Your task to perform on an android device: turn on notifications settings in the gmail app Image 0: 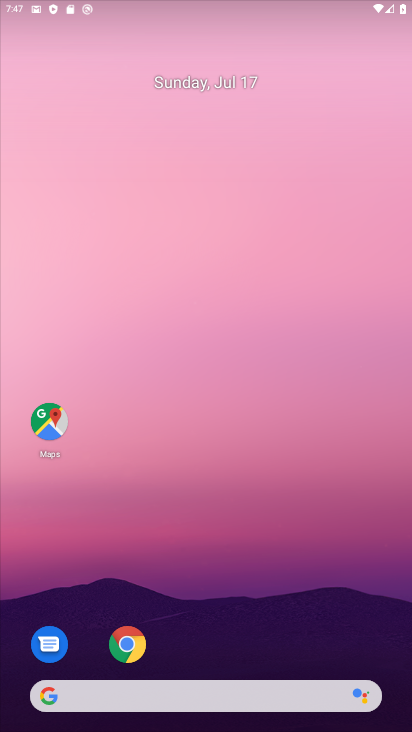
Step 0: press home button
Your task to perform on an android device: turn on notifications settings in the gmail app Image 1: 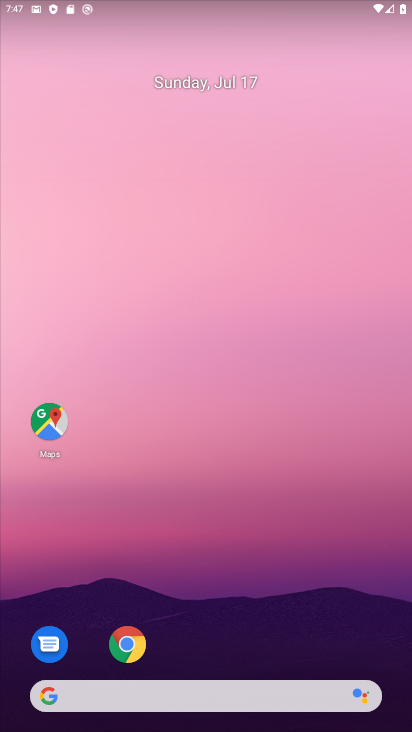
Step 1: drag from (266, 624) to (153, 42)
Your task to perform on an android device: turn on notifications settings in the gmail app Image 2: 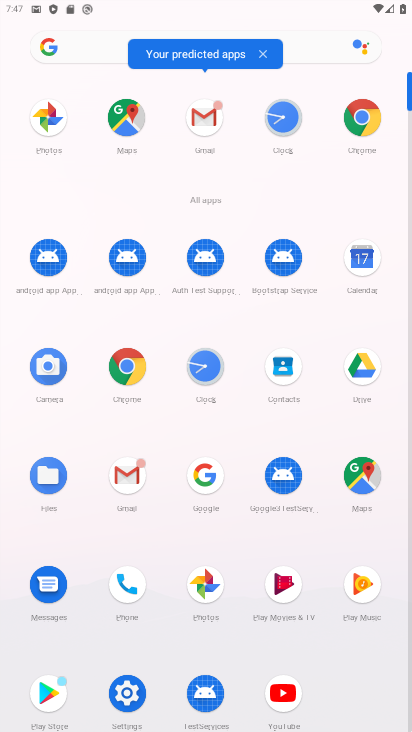
Step 2: click (209, 119)
Your task to perform on an android device: turn on notifications settings in the gmail app Image 3: 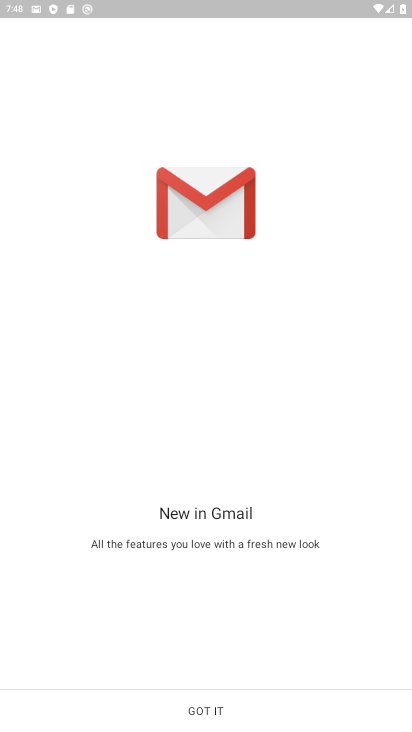
Step 3: click (215, 707)
Your task to perform on an android device: turn on notifications settings in the gmail app Image 4: 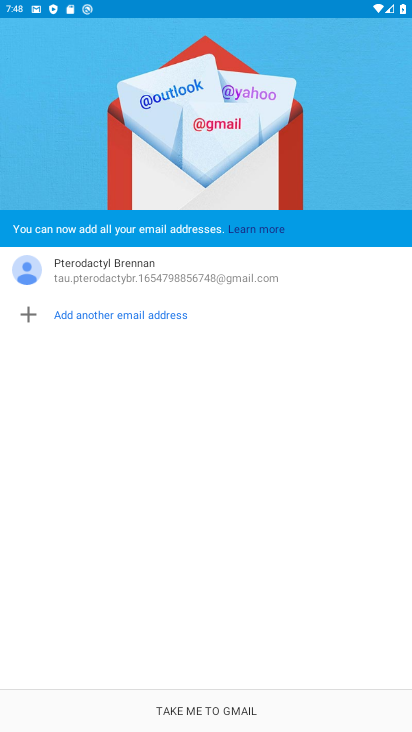
Step 4: click (215, 707)
Your task to perform on an android device: turn on notifications settings in the gmail app Image 5: 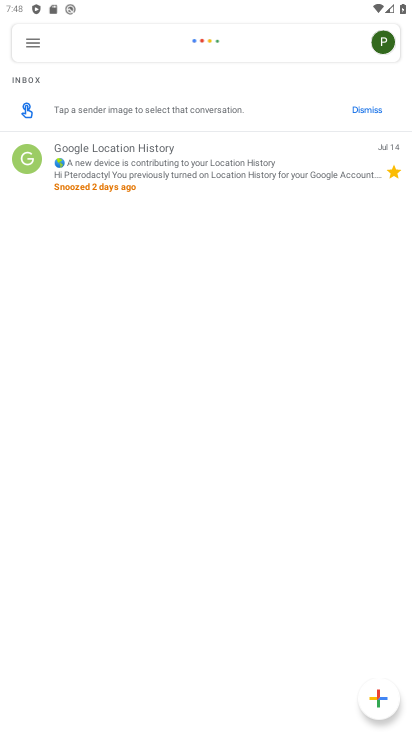
Step 5: click (30, 40)
Your task to perform on an android device: turn on notifications settings in the gmail app Image 6: 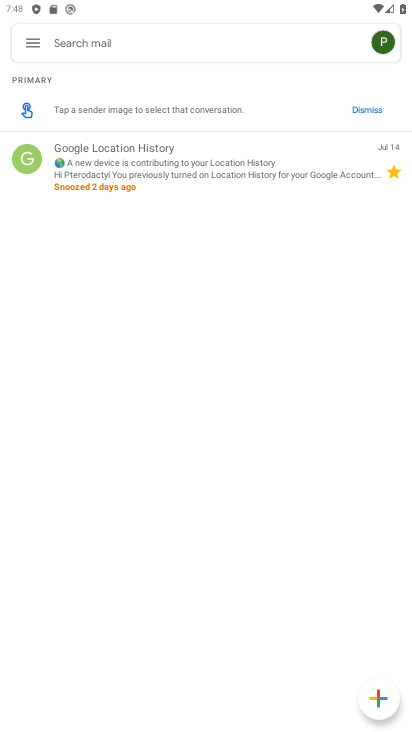
Step 6: click (30, 40)
Your task to perform on an android device: turn on notifications settings in the gmail app Image 7: 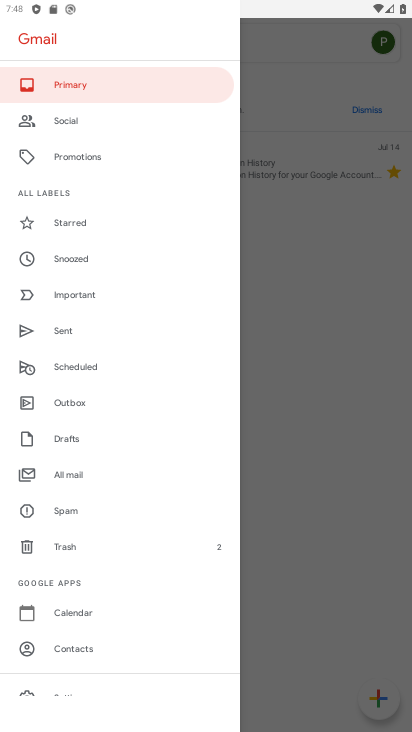
Step 7: drag from (142, 620) to (130, 362)
Your task to perform on an android device: turn on notifications settings in the gmail app Image 8: 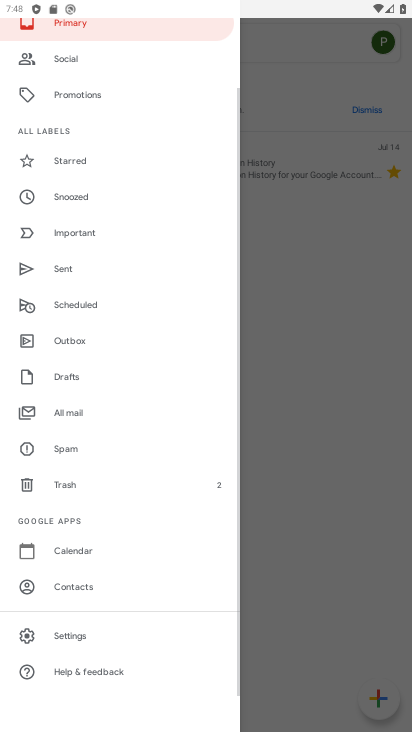
Step 8: click (59, 638)
Your task to perform on an android device: turn on notifications settings in the gmail app Image 9: 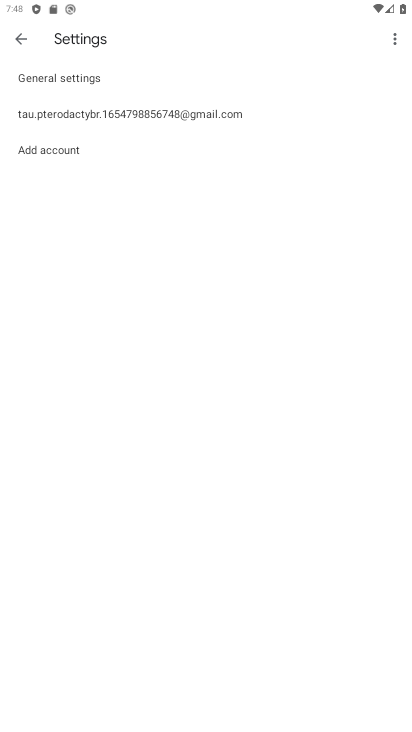
Step 9: click (54, 67)
Your task to perform on an android device: turn on notifications settings in the gmail app Image 10: 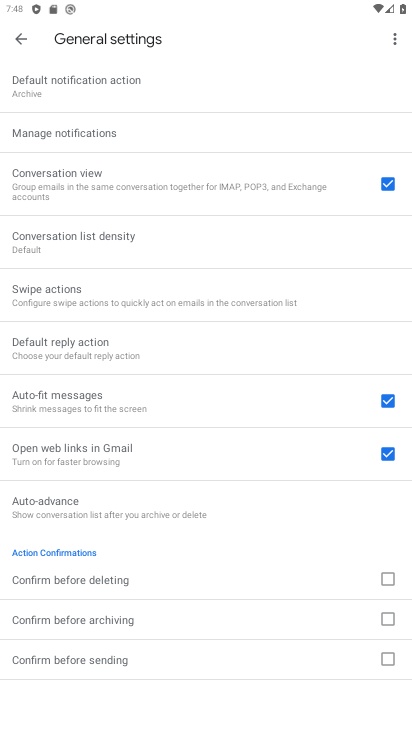
Step 10: click (58, 144)
Your task to perform on an android device: turn on notifications settings in the gmail app Image 11: 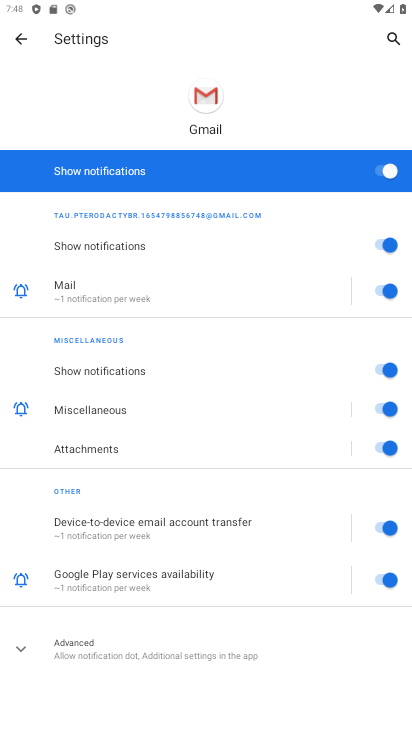
Step 11: task complete